Your task to perform on an android device: Open display settings Image 0: 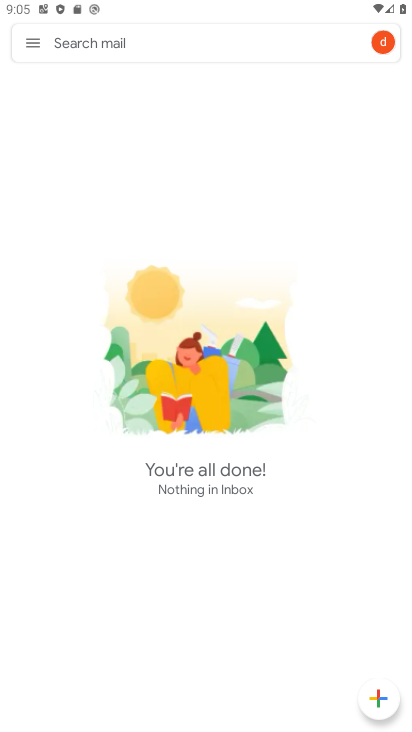
Step 0: press home button
Your task to perform on an android device: Open display settings Image 1: 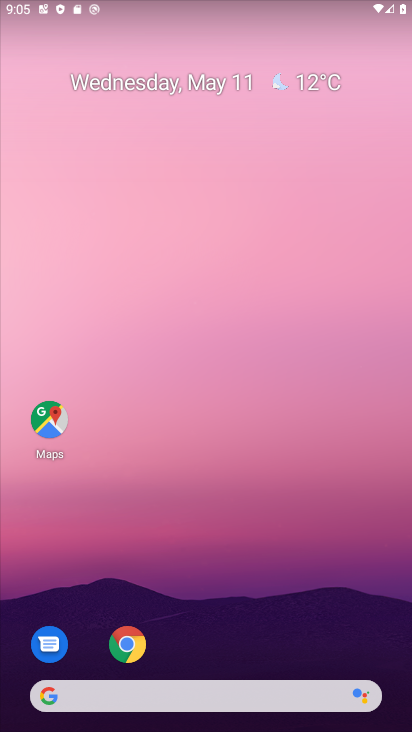
Step 1: drag from (264, 618) to (295, 126)
Your task to perform on an android device: Open display settings Image 2: 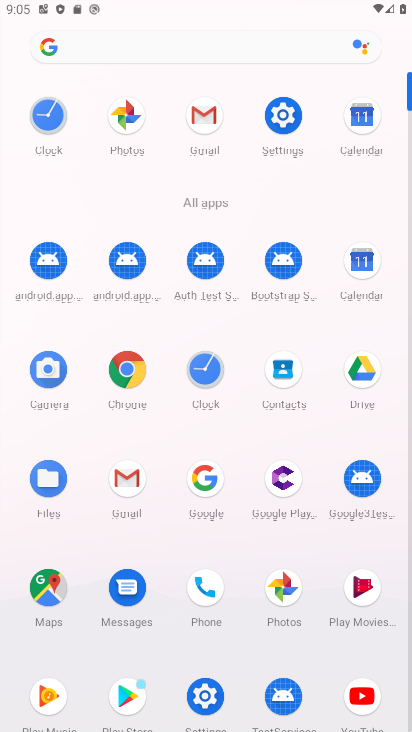
Step 2: click (208, 700)
Your task to perform on an android device: Open display settings Image 3: 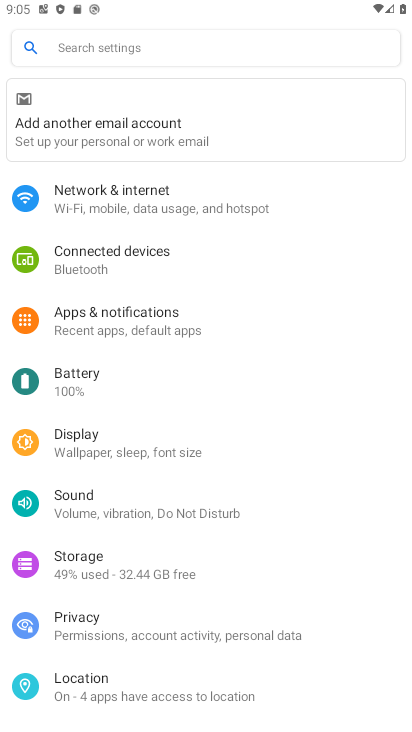
Step 3: click (146, 447)
Your task to perform on an android device: Open display settings Image 4: 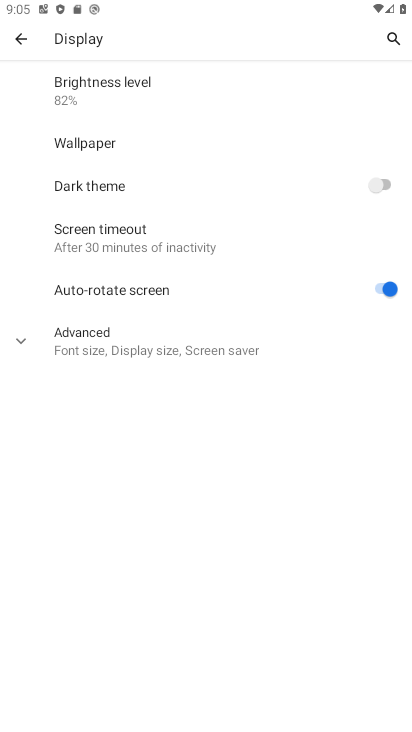
Step 4: click (141, 352)
Your task to perform on an android device: Open display settings Image 5: 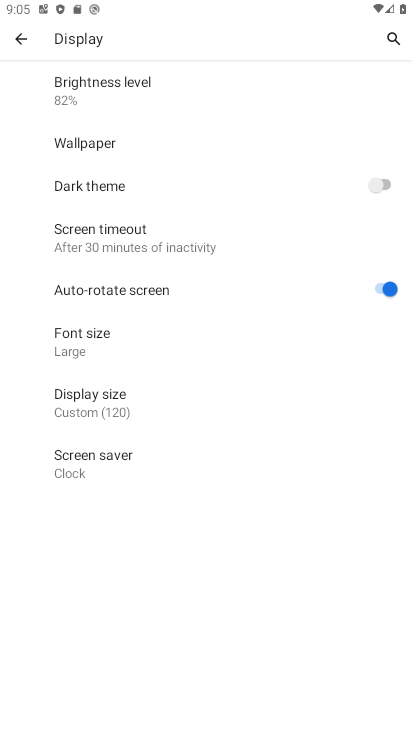
Step 5: task complete